Your task to perform on an android device: turn smart compose on in the gmail app Image 0: 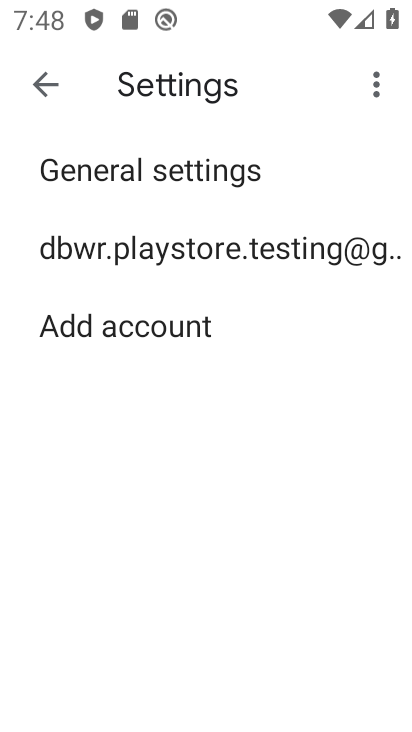
Step 0: press home button
Your task to perform on an android device: turn smart compose on in the gmail app Image 1: 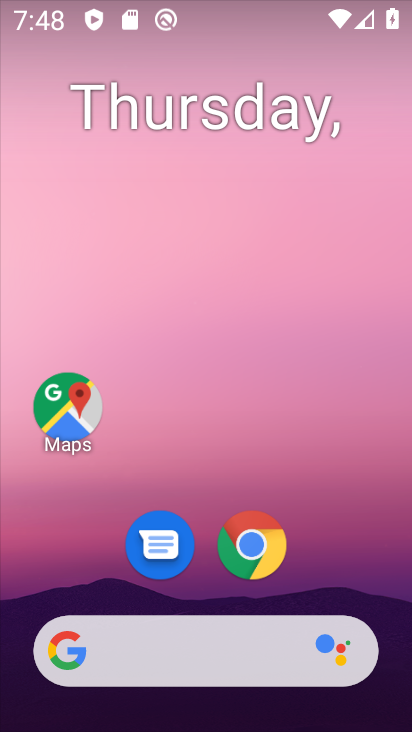
Step 1: drag from (224, 580) to (250, 203)
Your task to perform on an android device: turn smart compose on in the gmail app Image 2: 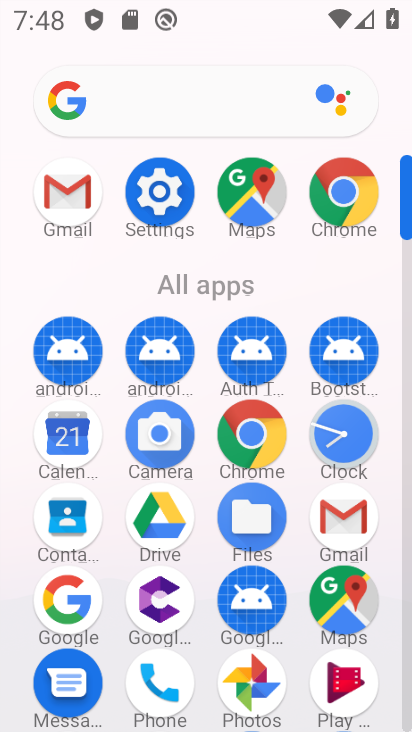
Step 2: click (349, 516)
Your task to perform on an android device: turn smart compose on in the gmail app Image 3: 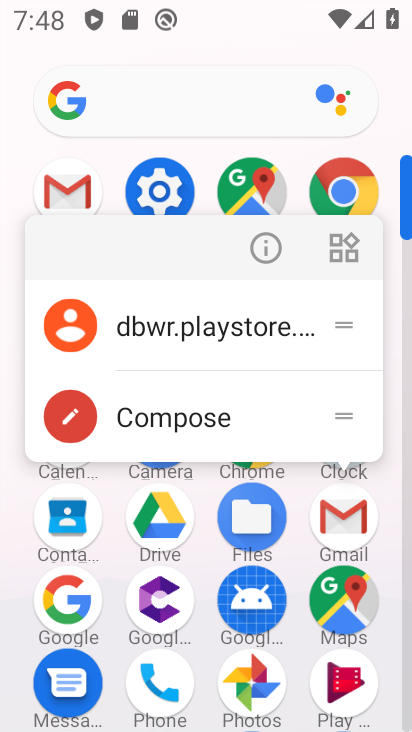
Step 3: click (349, 516)
Your task to perform on an android device: turn smart compose on in the gmail app Image 4: 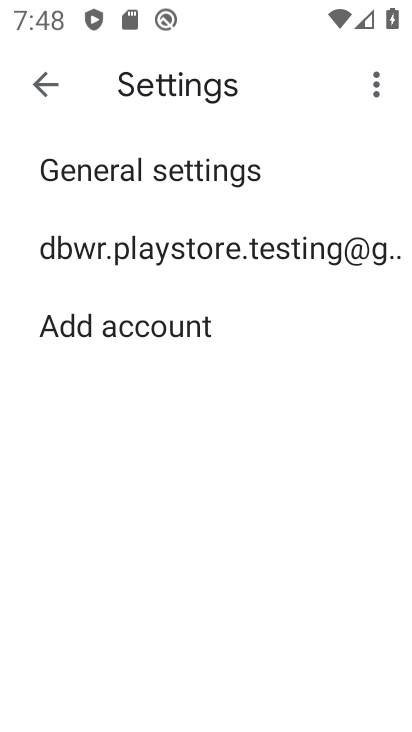
Step 4: click (306, 245)
Your task to perform on an android device: turn smart compose on in the gmail app Image 5: 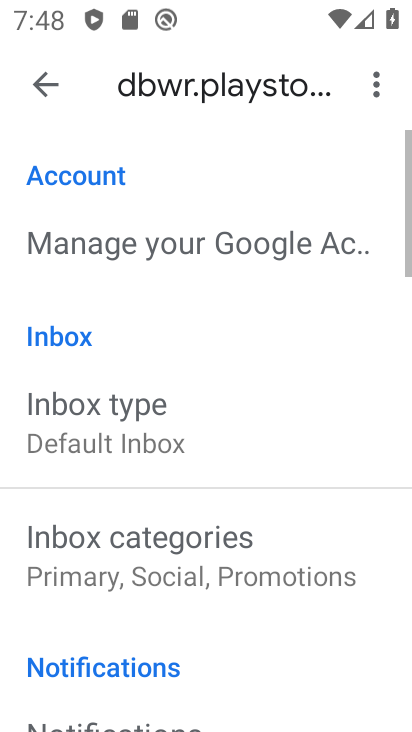
Step 5: task complete